Your task to perform on an android device: remove spam from my inbox in the gmail app Image 0: 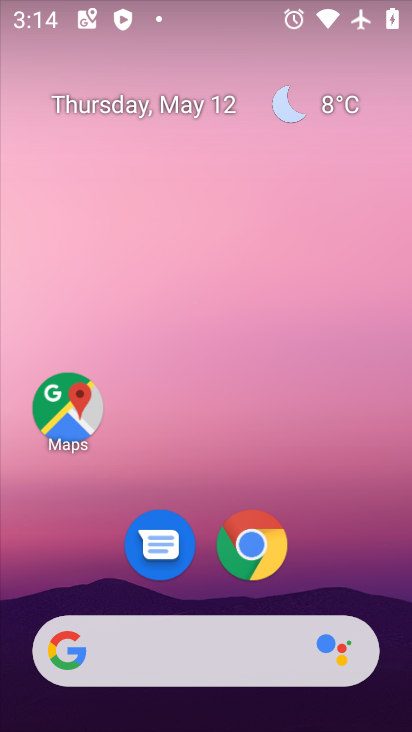
Step 0: drag from (391, 677) to (282, 92)
Your task to perform on an android device: remove spam from my inbox in the gmail app Image 1: 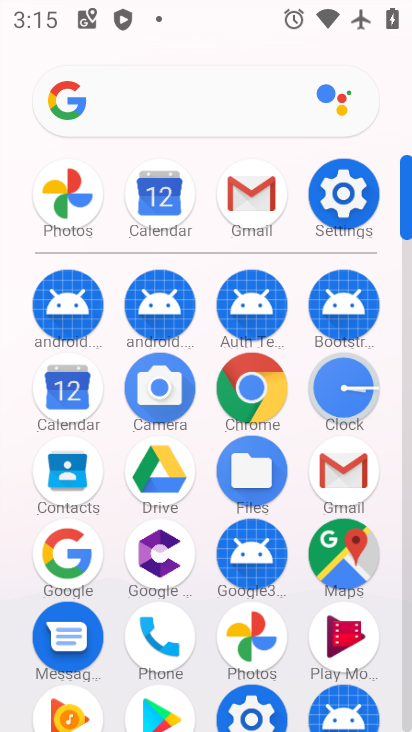
Step 1: click (408, 684)
Your task to perform on an android device: remove spam from my inbox in the gmail app Image 2: 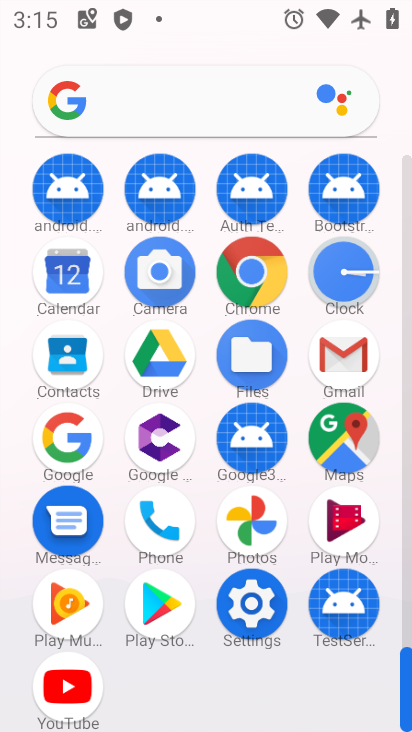
Step 2: click (344, 351)
Your task to perform on an android device: remove spam from my inbox in the gmail app Image 3: 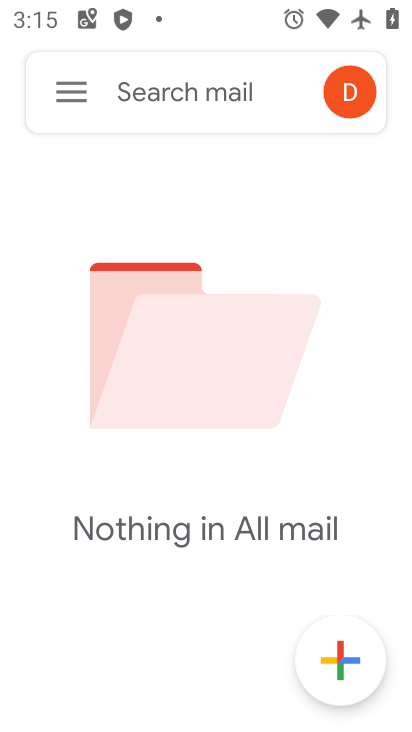
Step 3: click (67, 90)
Your task to perform on an android device: remove spam from my inbox in the gmail app Image 4: 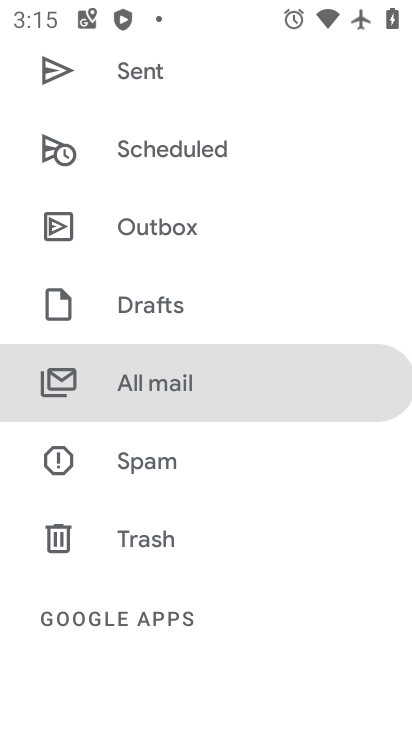
Step 4: click (156, 466)
Your task to perform on an android device: remove spam from my inbox in the gmail app Image 5: 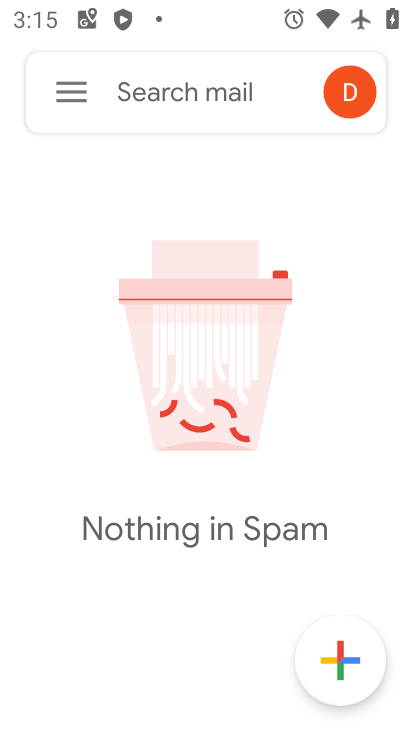
Step 5: task complete